Your task to perform on an android device: delete a single message in the gmail app Image 0: 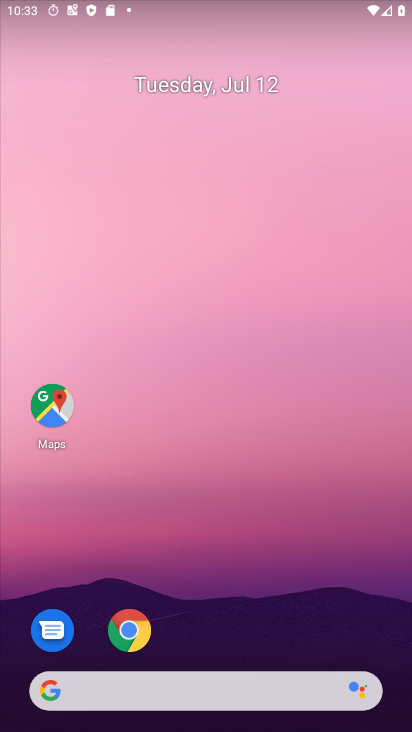
Step 0: drag from (226, 643) to (297, 124)
Your task to perform on an android device: delete a single message in the gmail app Image 1: 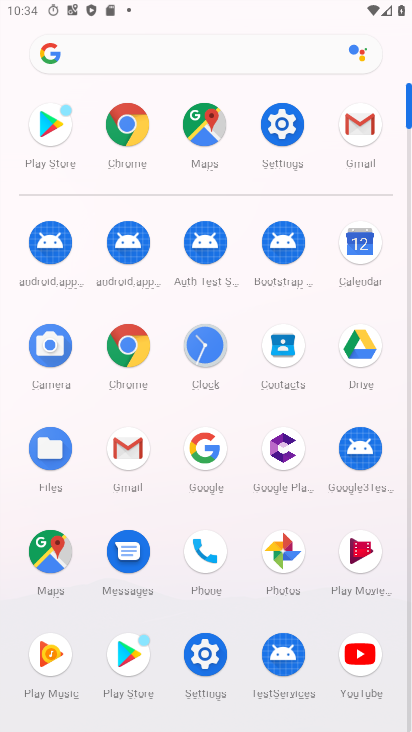
Step 1: click (362, 129)
Your task to perform on an android device: delete a single message in the gmail app Image 2: 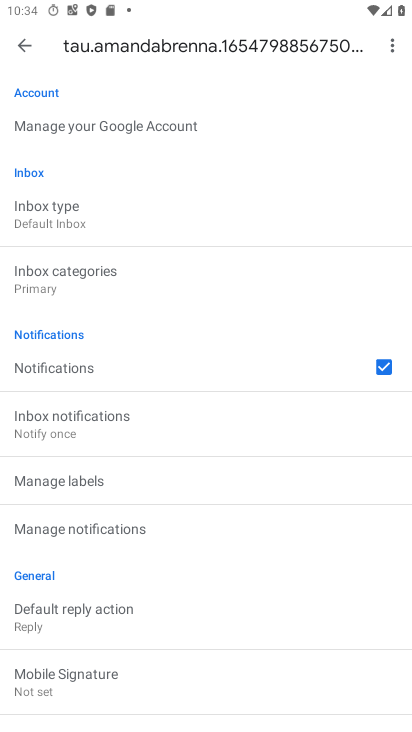
Step 2: press back button
Your task to perform on an android device: delete a single message in the gmail app Image 3: 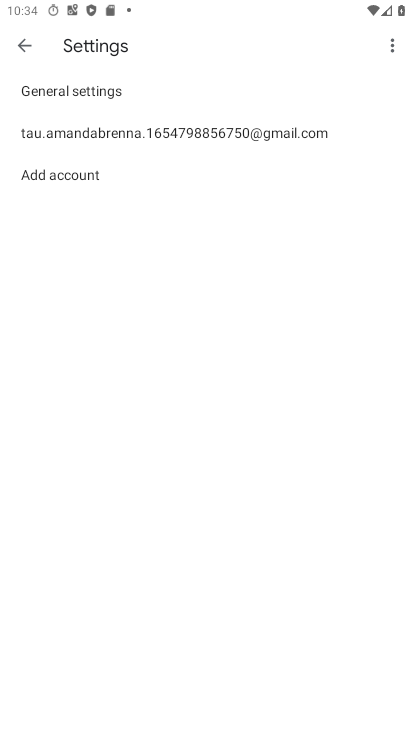
Step 3: press back button
Your task to perform on an android device: delete a single message in the gmail app Image 4: 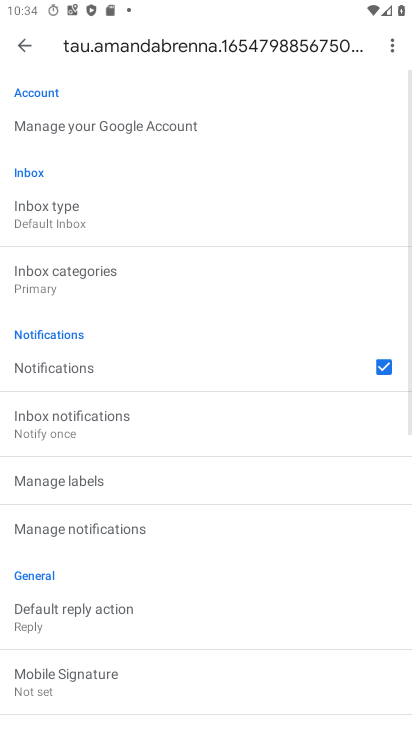
Step 4: press back button
Your task to perform on an android device: delete a single message in the gmail app Image 5: 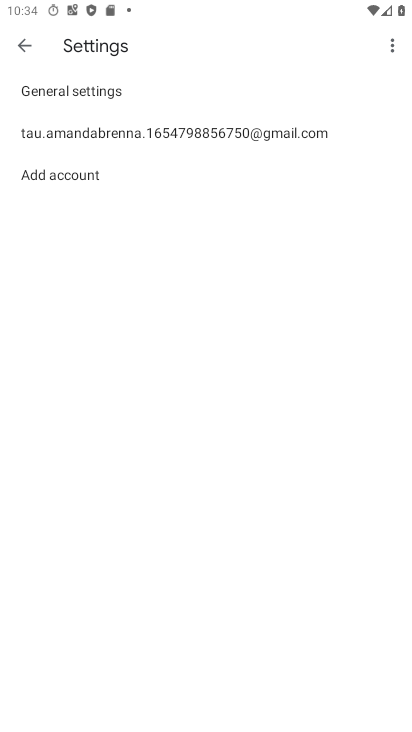
Step 5: press back button
Your task to perform on an android device: delete a single message in the gmail app Image 6: 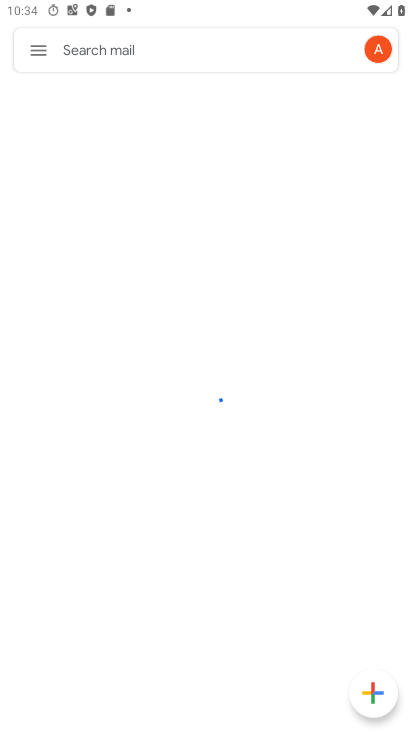
Step 6: click (39, 53)
Your task to perform on an android device: delete a single message in the gmail app Image 7: 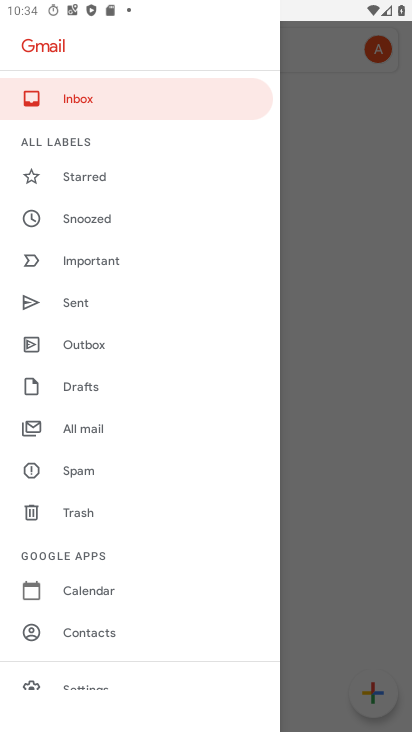
Step 7: click (81, 429)
Your task to perform on an android device: delete a single message in the gmail app Image 8: 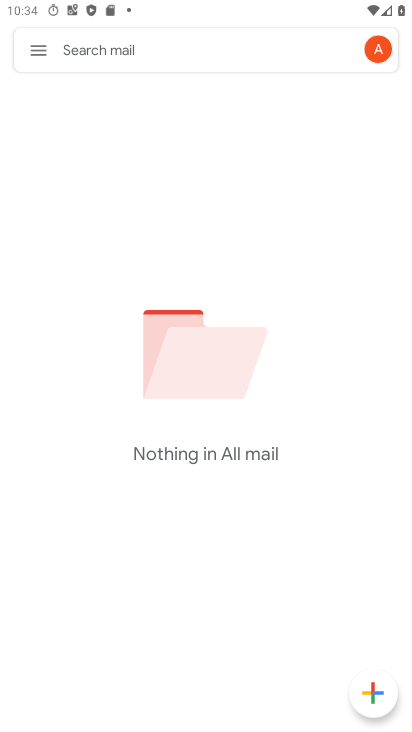
Step 8: task complete